Your task to perform on an android device: Add "bose soundlink" to the cart on target Image 0: 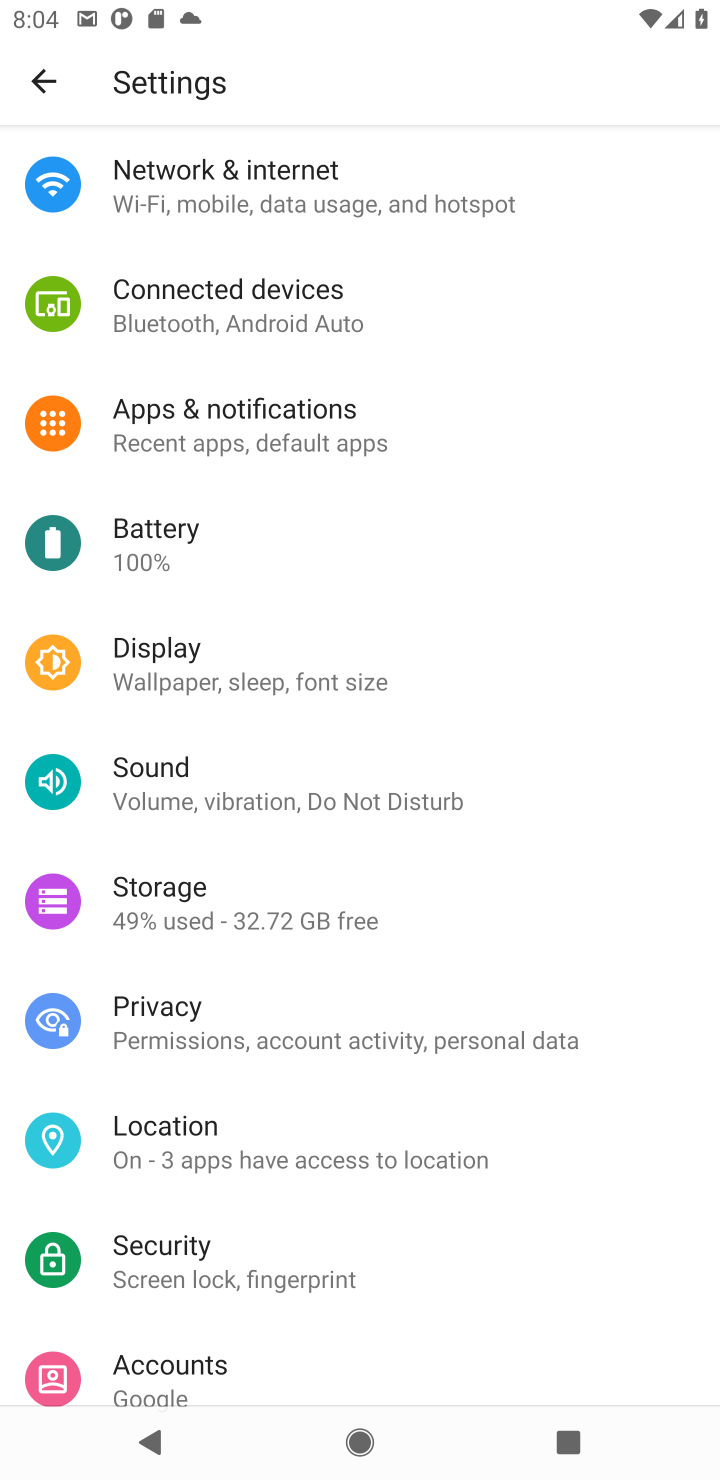
Step 0: press home button
Your task to perform on an android device: Add "bose soundlink" to the cart on target Image 1: 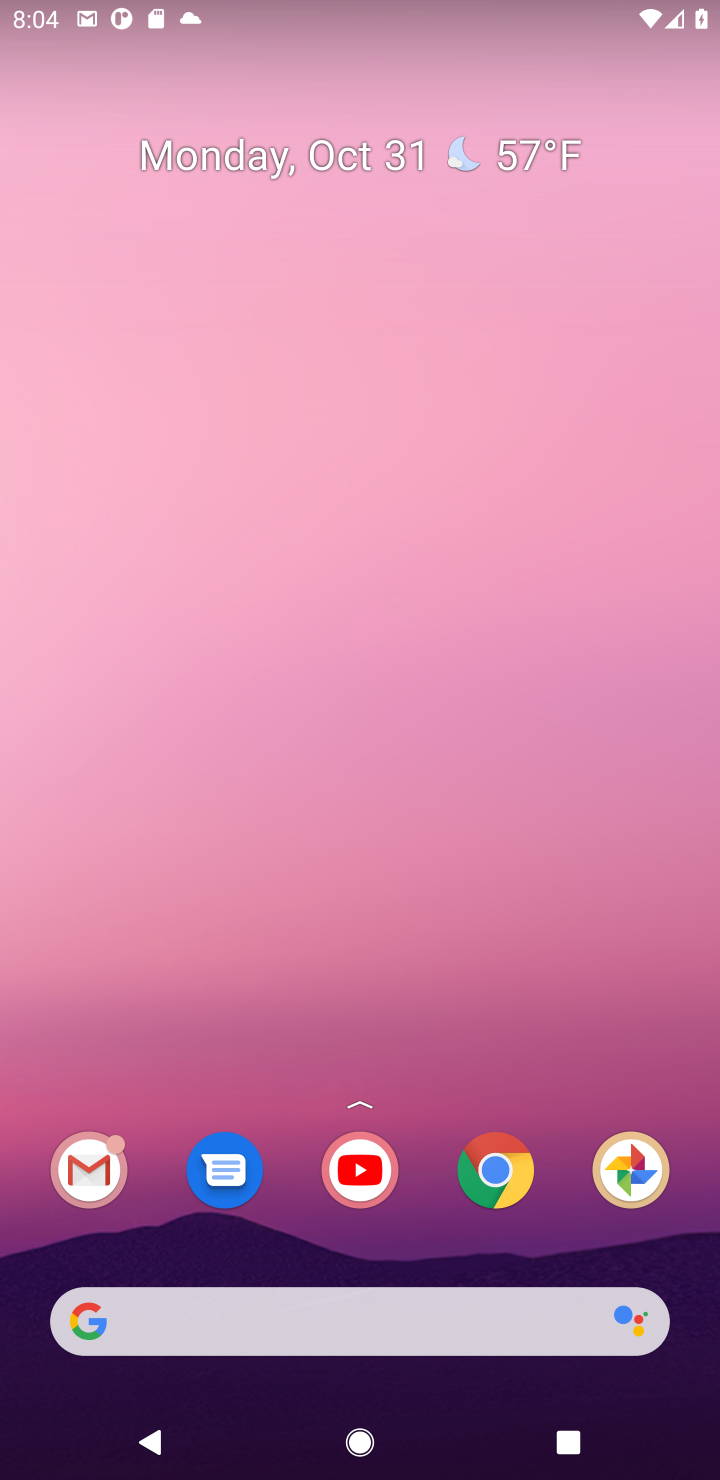
Step 1: click (472, 1154)
Your task to perform on an android device: Add "bose soundlink" to the cart on target Image 2: 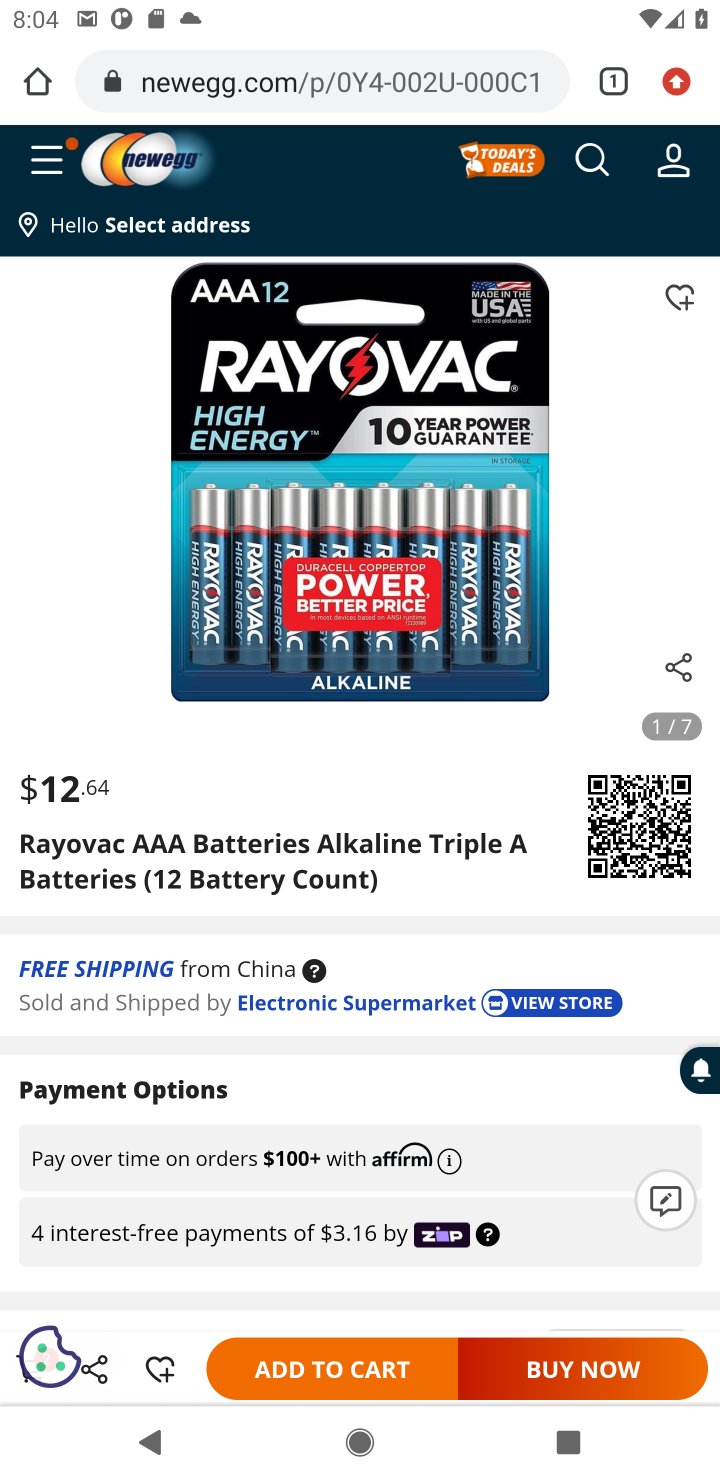
Step 2: click (374, 72)
Your task to perform on an android device: Add "bose soundlink" to the cart on target Image 3: 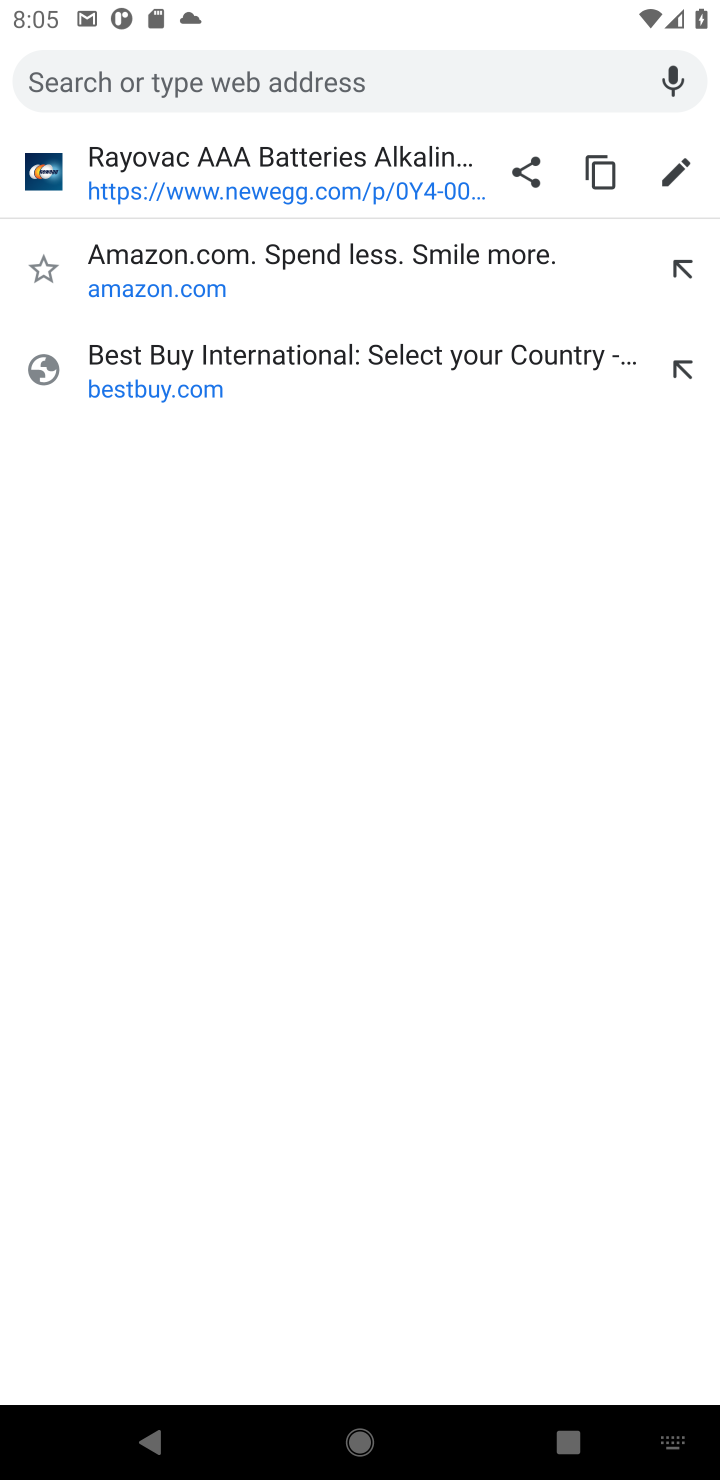
Step 3: type "target"
Your task to perform on an android device: Add "bose soundlink" to the cart on target Image 4: 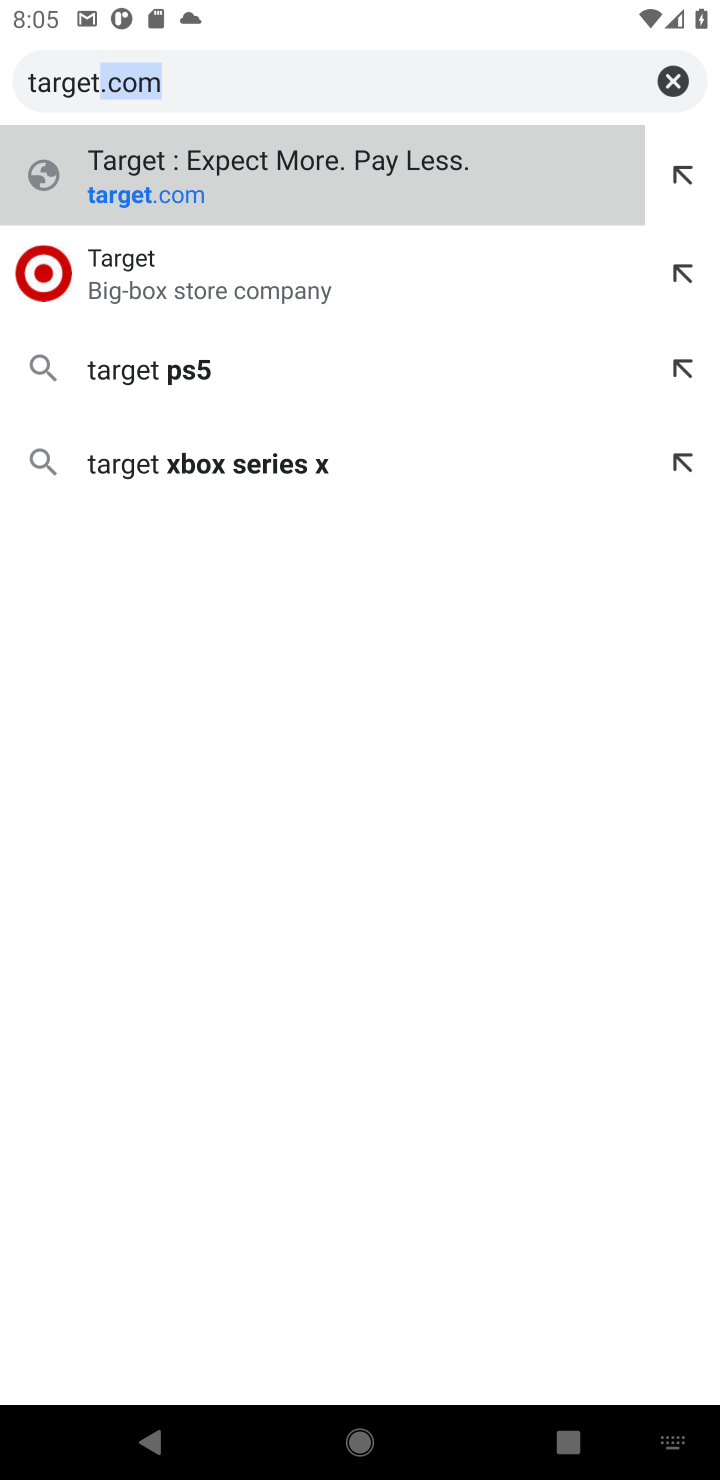
Step 4: click (396, 269)
Your task to perform on an android device: Add "bose soundlink" to the cart on target Image 5: 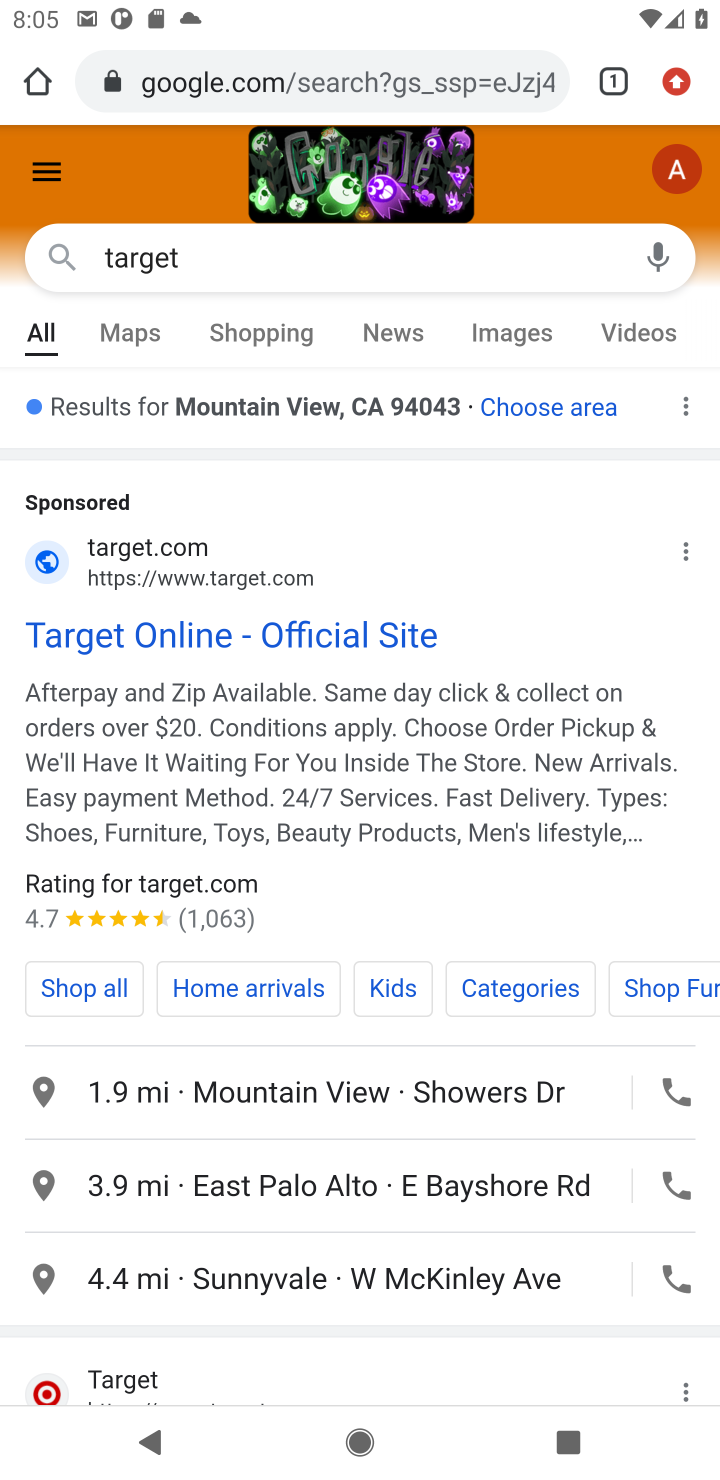
Step 5: click (76, 633)
Your task to perform on an android device: Add "bose soundlink" to the cart on target Image 6: 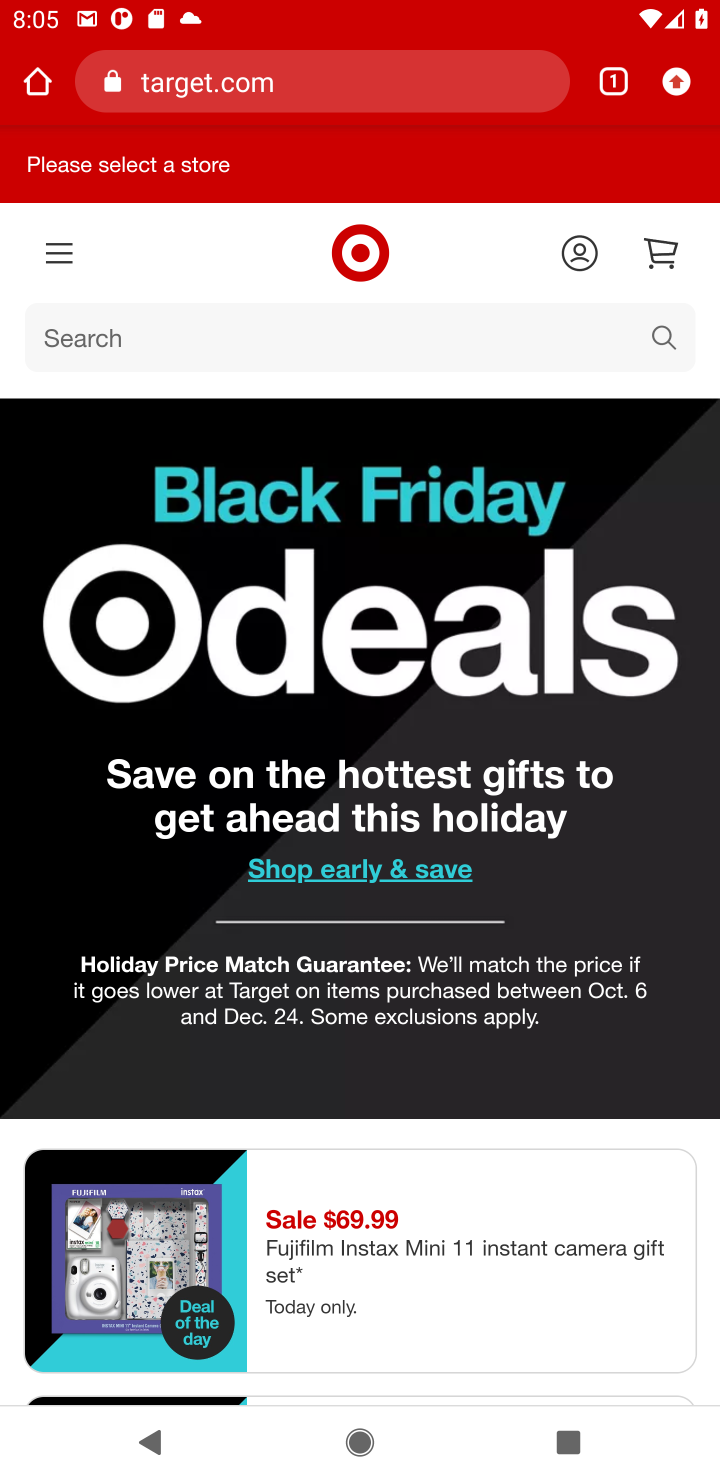
Step 6: click (135, 324)
Your task to perform on an android device: Add "bose soundlink" to the cart on target Image 7: 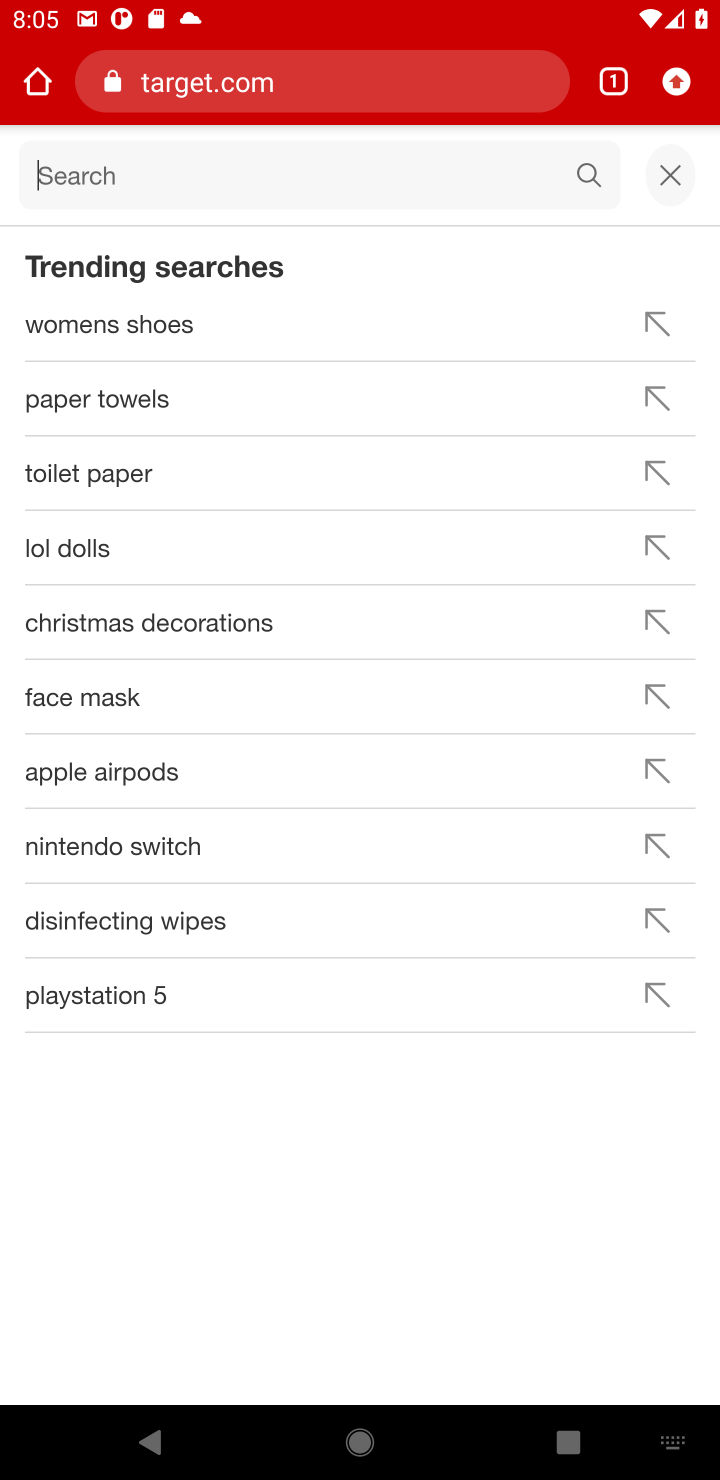
Step 7: type "bose soundlink"
Your task to perform on an android device: Add "bose soundlink" to the cart on target Image 8: 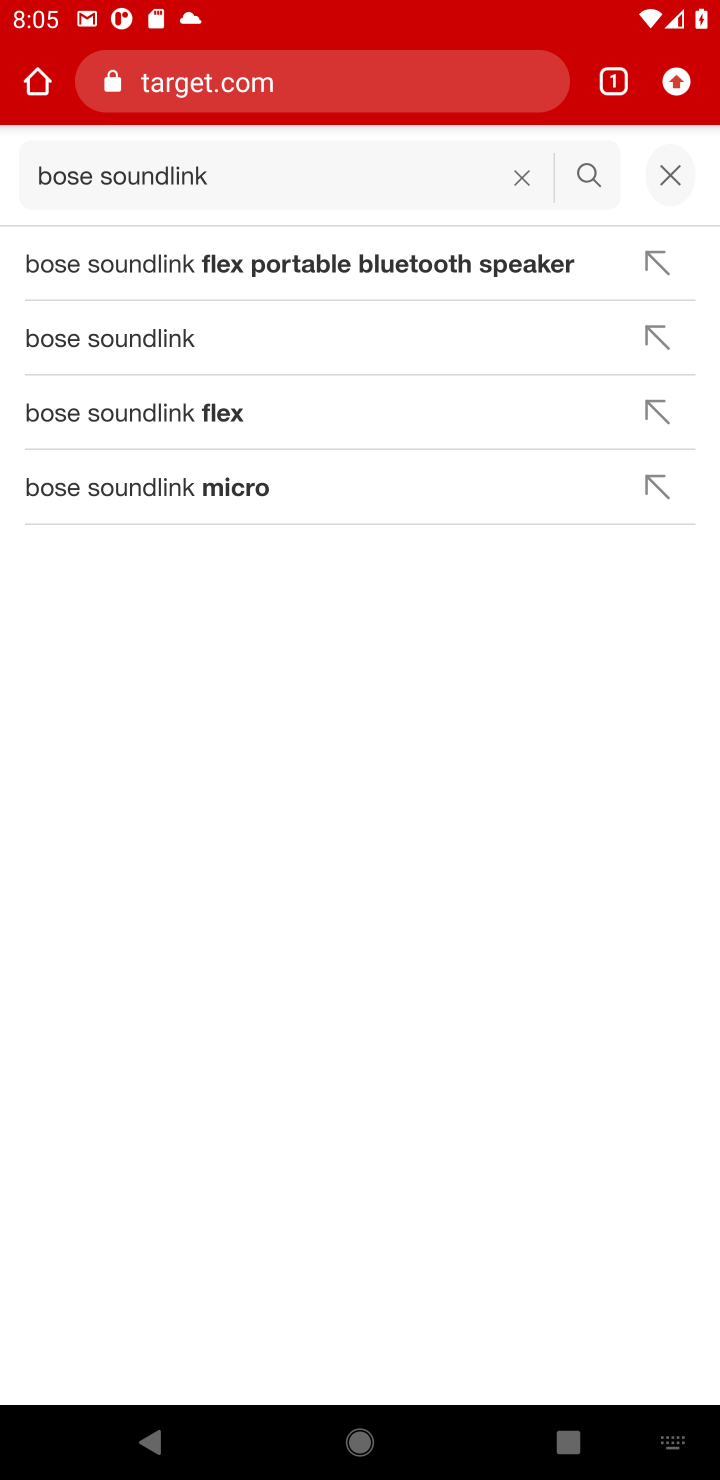
Step 8: click (585, 167)
Your task to perform on an android device: Add "bose soundlink" to the cart on target Image 9: 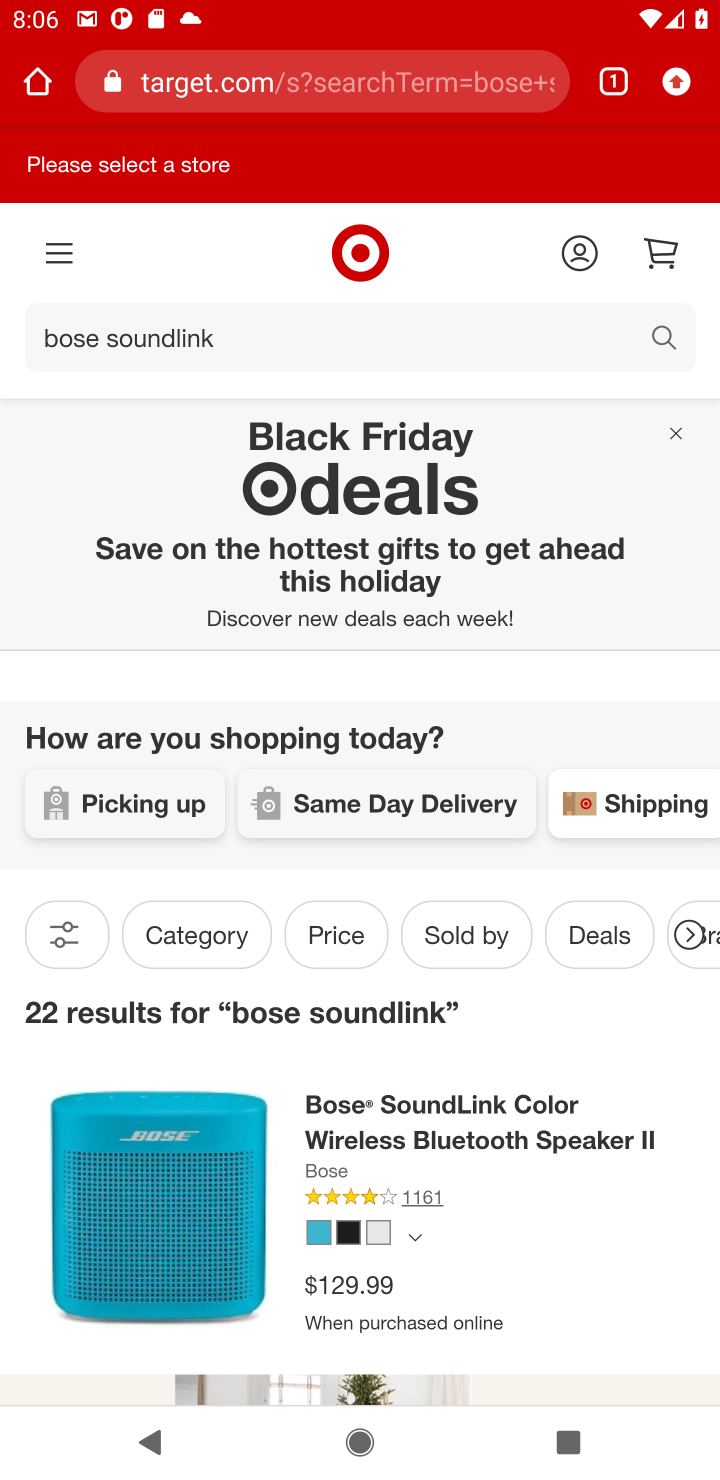
Step 9: click (663, 342)
Your task to perform on an android device: Add "bose soundlink" to the cart on target Image 10: 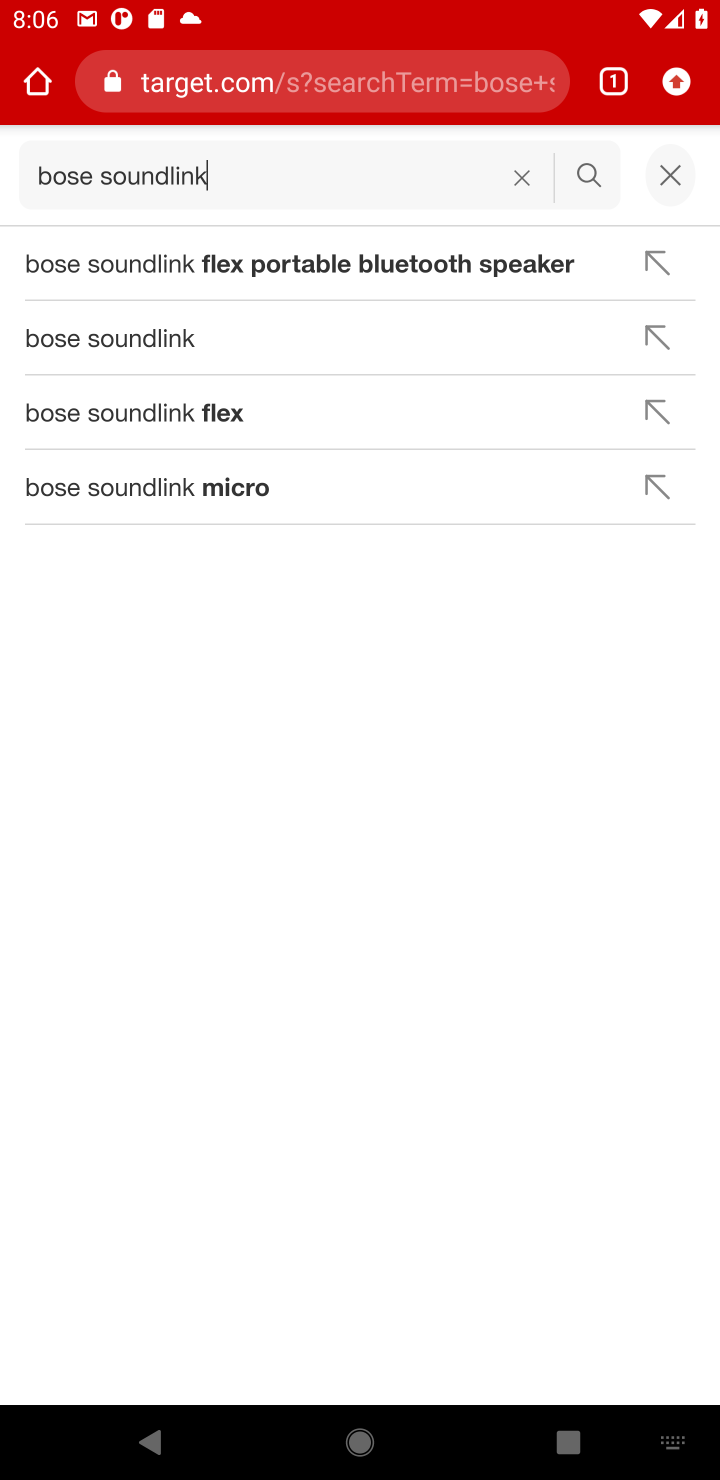
Step 10: click (595, 183)
Your task to perform on an android device: Add "bose soundlink" to the cart on target Image 11: 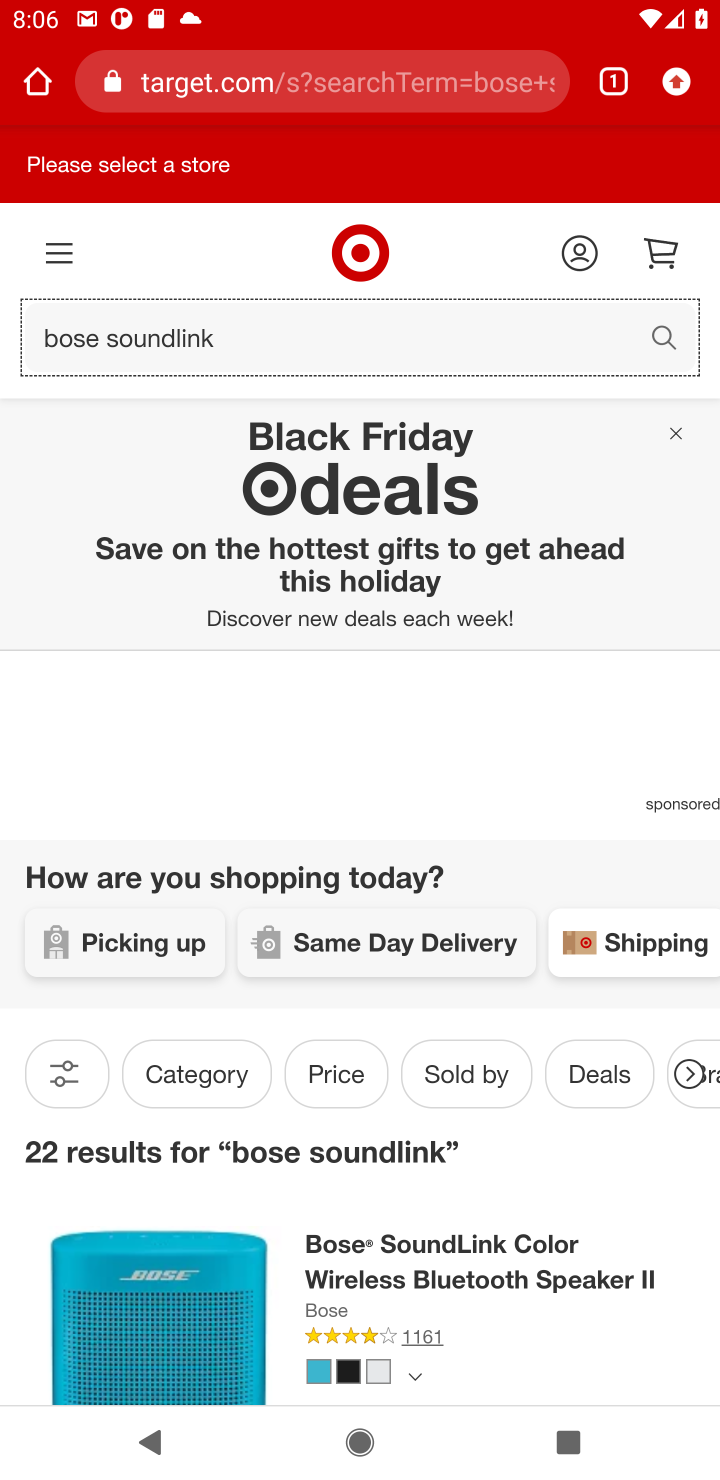
Step 11: drag from (139, 1346) to (286, 604)
Your task to perform on an android device: Add "bose soundlink" to the cart on target Image 12: 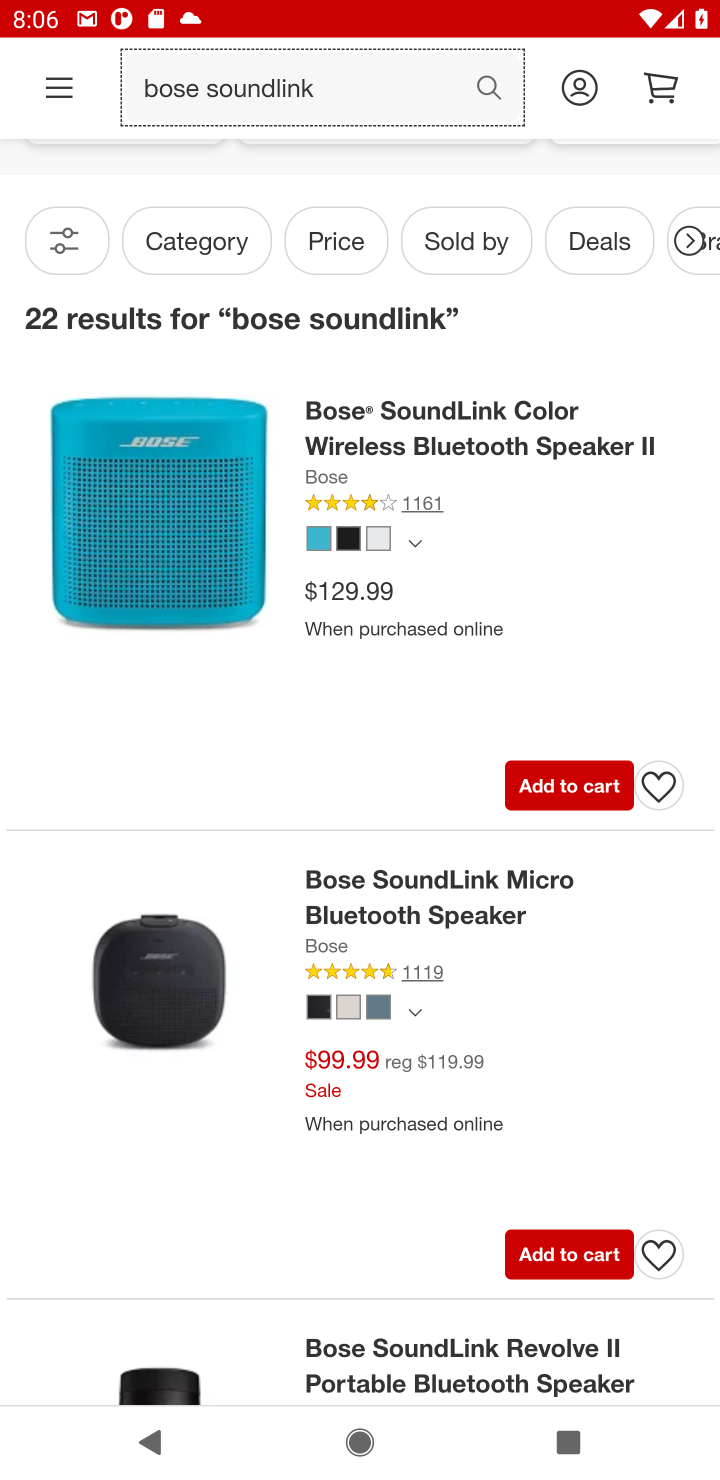
Step 12: click (583, 873)
Your task to perform on an android device: Add "bose soundlink" to the cart on target Image 13: 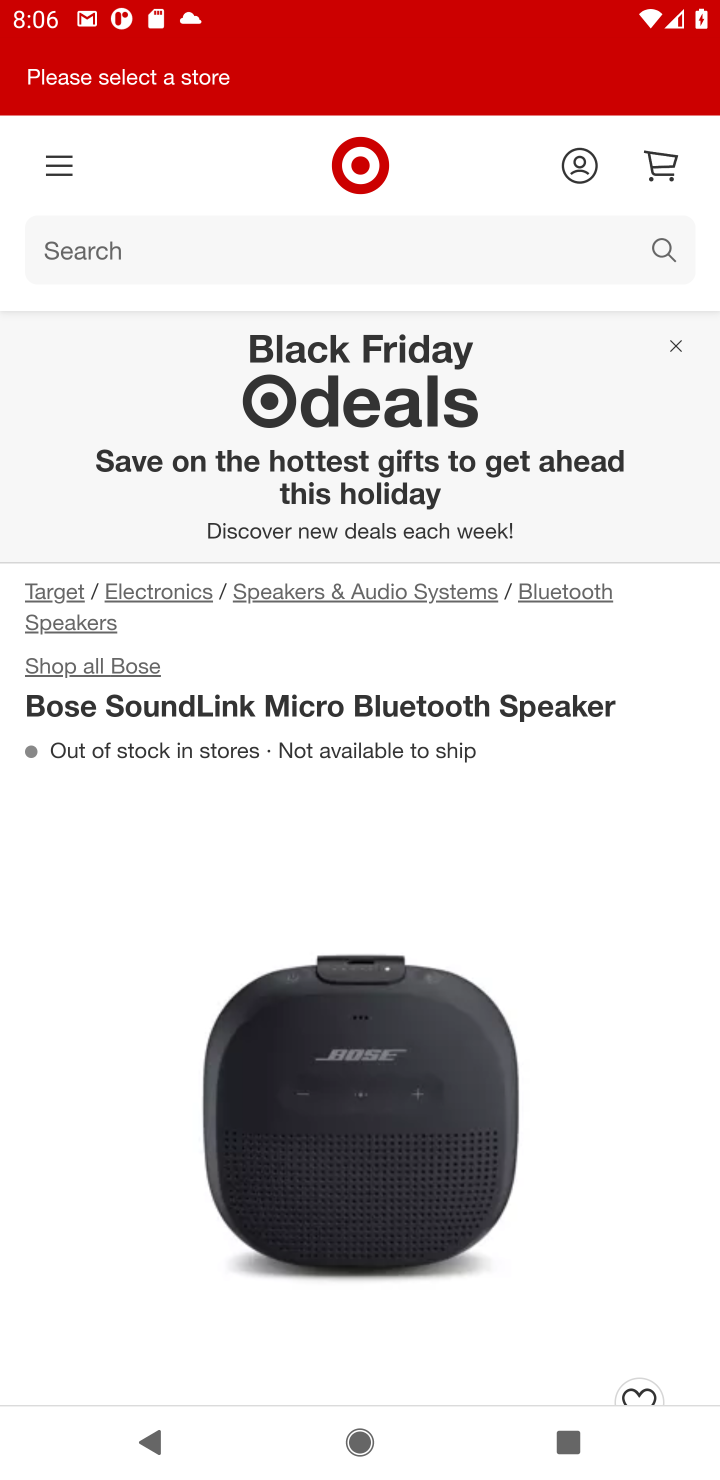
Step 13: drag from (321, 1136) to (303, 344)
Your task to perform on an android device: Add "bose soundlink" to the cart on target Image 14: 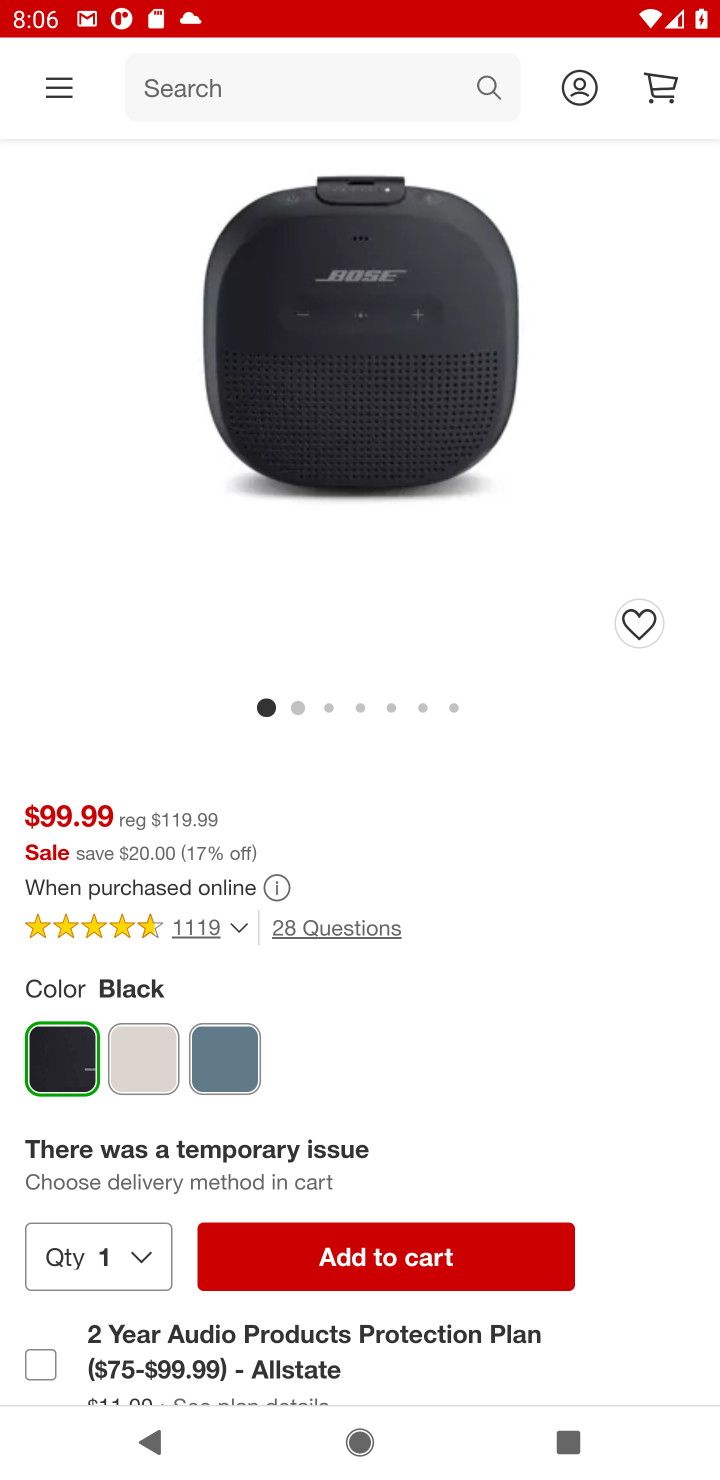
Step 14: drag from (456, 1165) to (428, 456)
Your task to perform on an android device: Add "bose soundlink" to the cart on target Image 15: 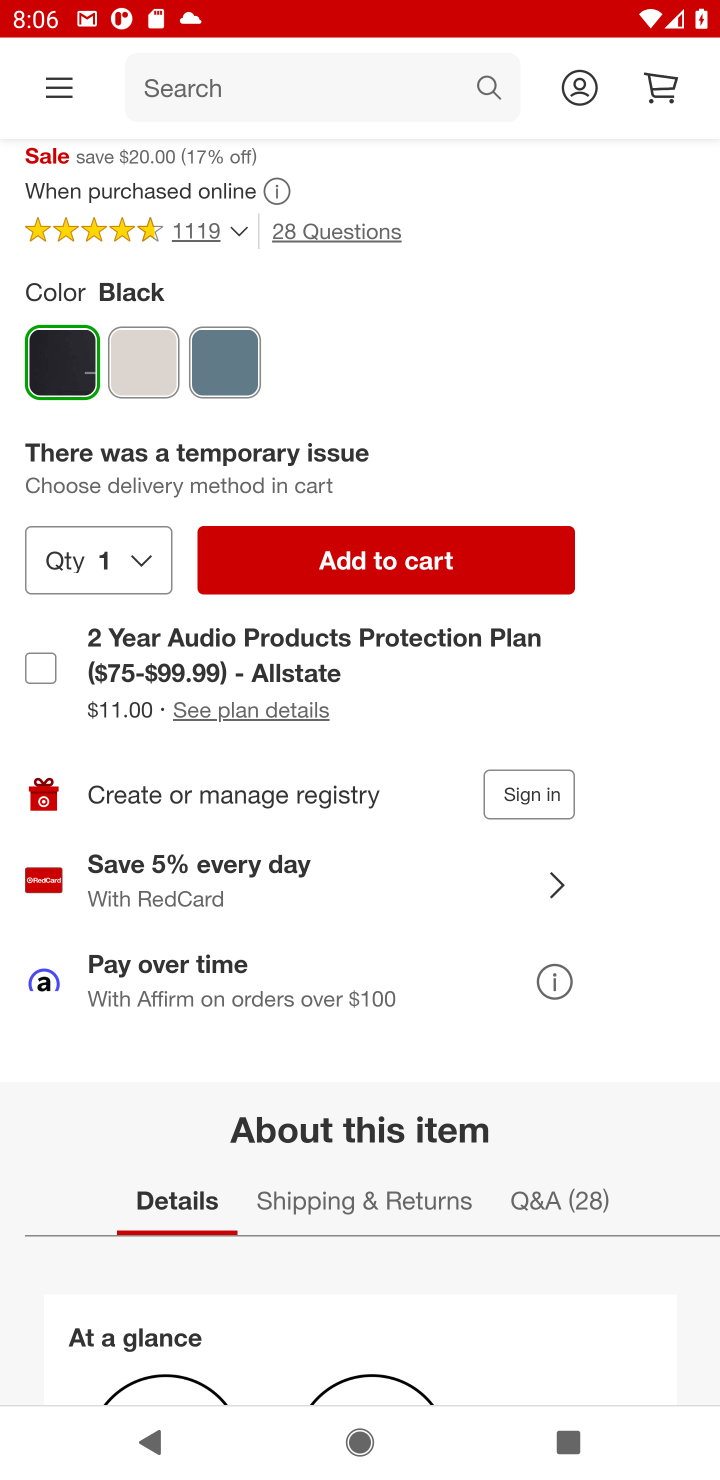
Step 15: click (444, 544)
Your task to perform on an android device: Add "bose soundlink" to the cart on target Image 16: 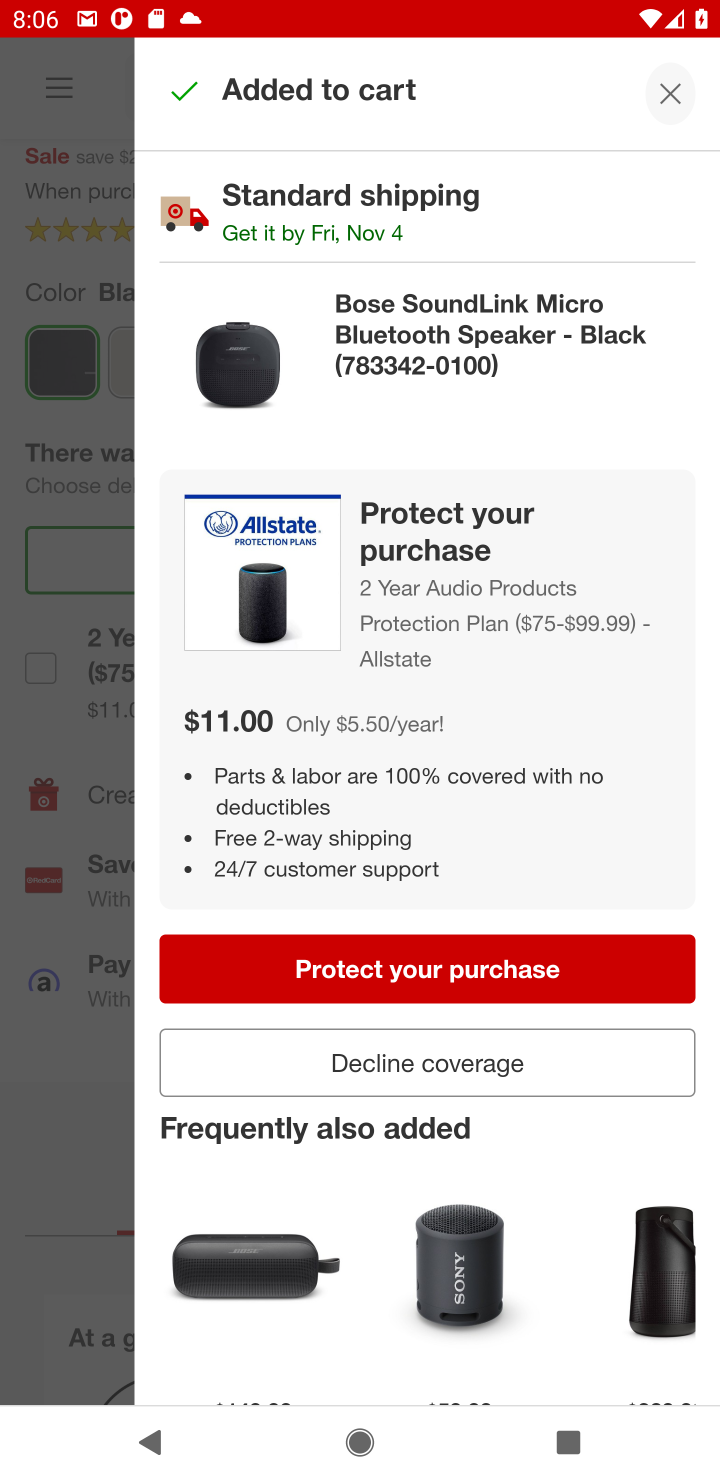
Step 16: task complete